Your task to perform on an android device: change the clock display to show seconds Image 0: 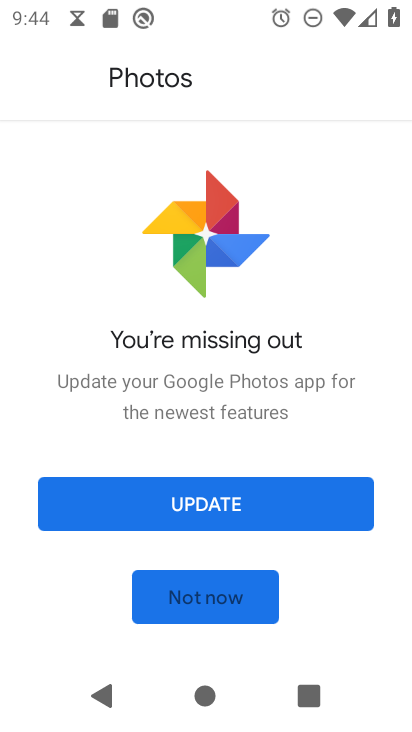
Step 0: press home button
Your task to perform on an android device: change the clock display to show seconds Image 1: 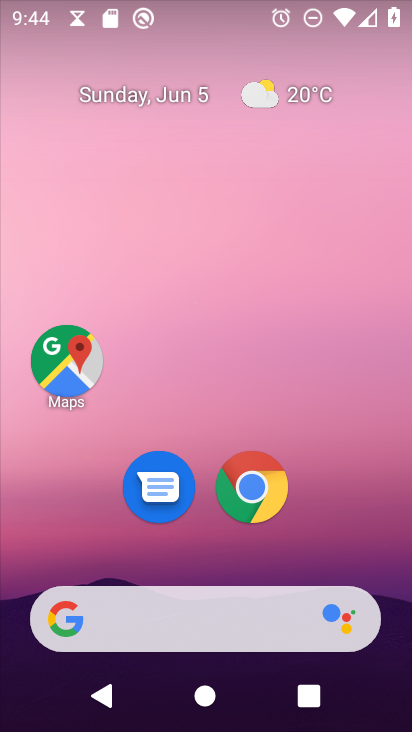
Step 1: drag from (294, 527) to (320, 247)
Your task to perform on an android device: change the clock display to show seconds Image 2: 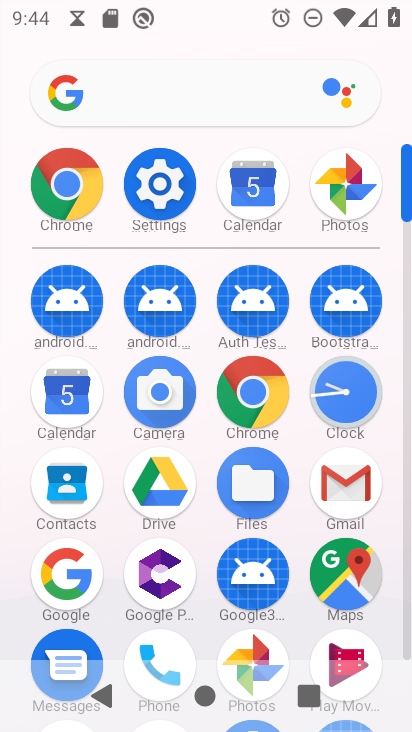
Step 2: click (327, 394)
Your task to perform on an android device: change the clock display to show seconds Image 3: 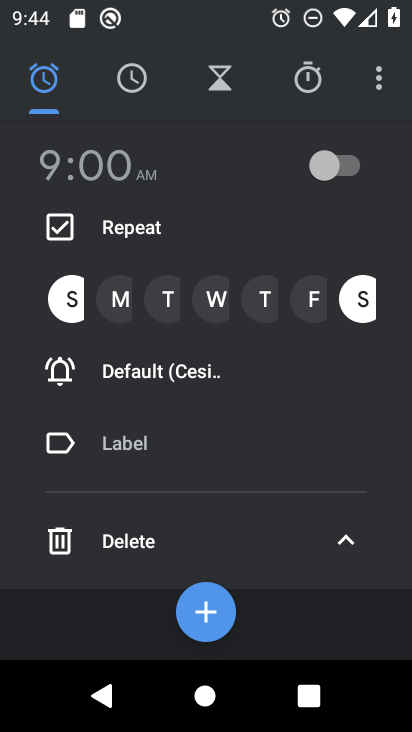
Step 3: click (370, 65)
Your task to perform on an android device: change the clock display to show seconds Image 4: 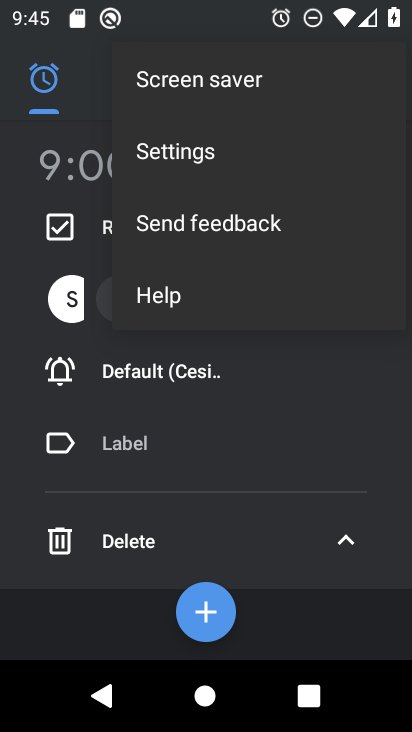
Step 4: click (206, 157)
Your task to perform on an android device: change the clock display to show seconds Image 5: 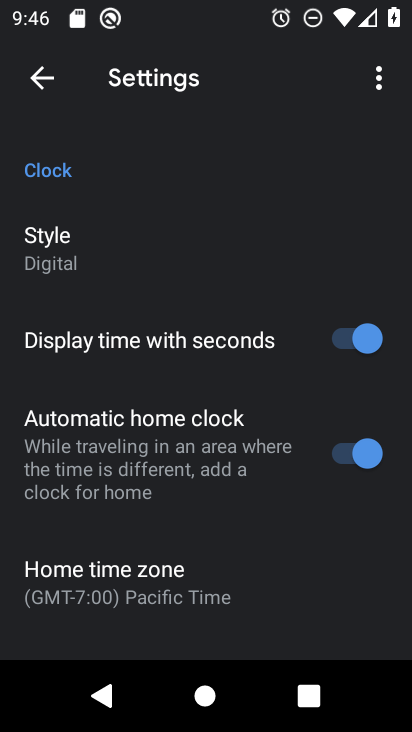
Step 5: task complete